Your task to perform on an android device: check google app version Image 0: 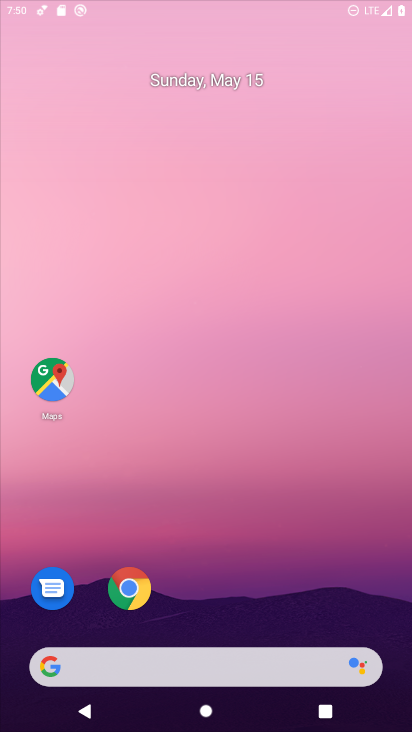
Step 0: drag from (366, 594) to (306, 56)
Your task to perform on an android device: check google app version Image 1: 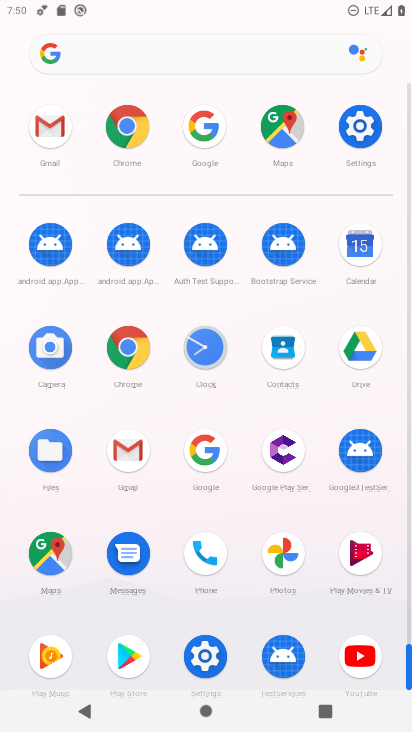
Step 1: click (208, 460)
Your task to perform on an android device: check google app version Image 2: 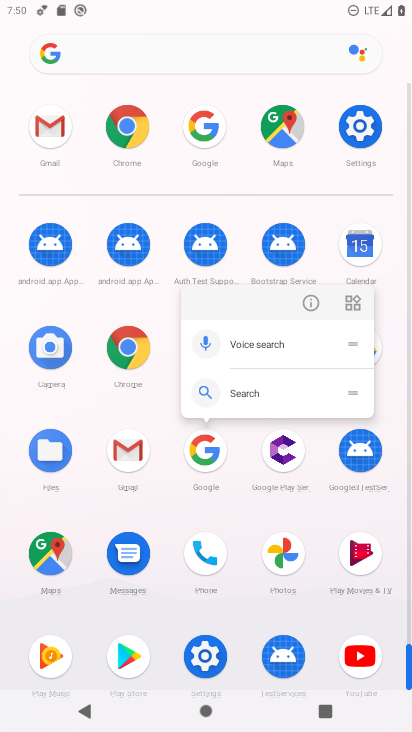
Step 2: click (313, 299)
Your task to perform on an android device: check google app version Image 3: 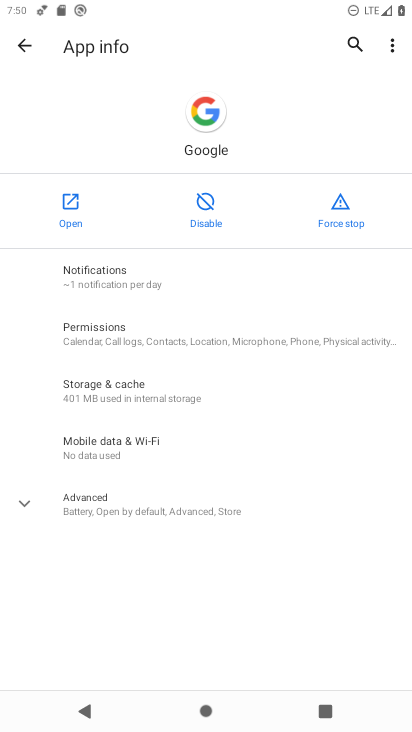
Step 3: click (31, 510)
Your task to perform on an android device: check google app version Image 4: 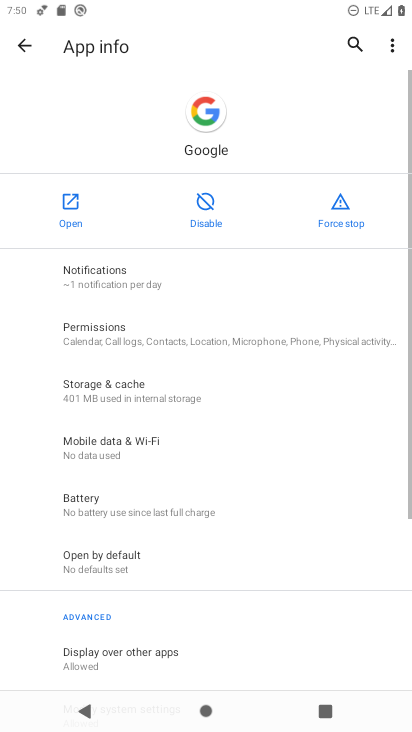
Step 4: task complete